Your task to perform on an android device: turn on wifi Image 0: 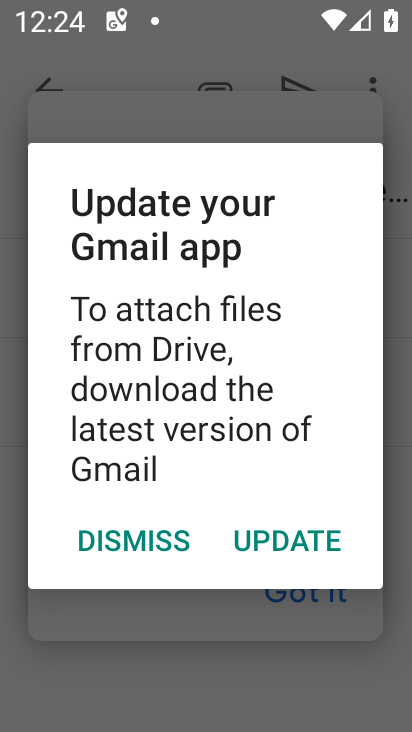
Step 0: press back button
Your task to perform on an android device: turn on wifi Image 1: 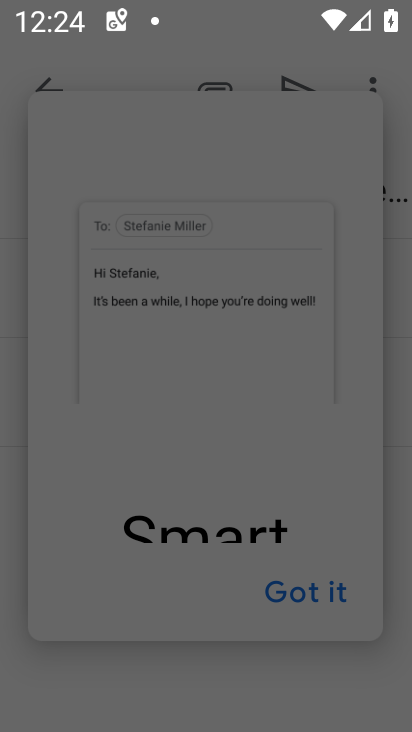
Step 1: task complete